Your task to perform on an android device: Open sound settings Image 0: 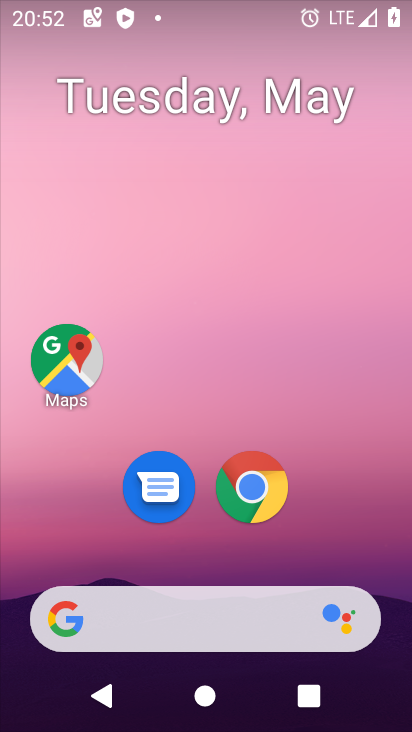
Step 0: drag from (309, 515) to (214, 6)
Your task to perform on an android device: Open sound settings Image 1: 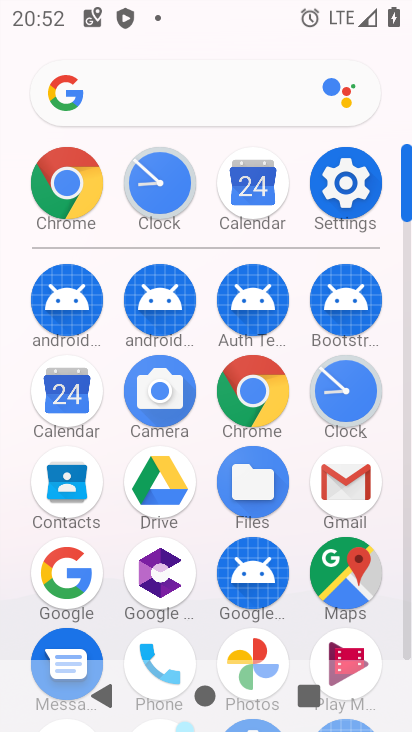
Step 1: click (344, 181)
Your task to perform on an android device: Open sound settings Image 2: 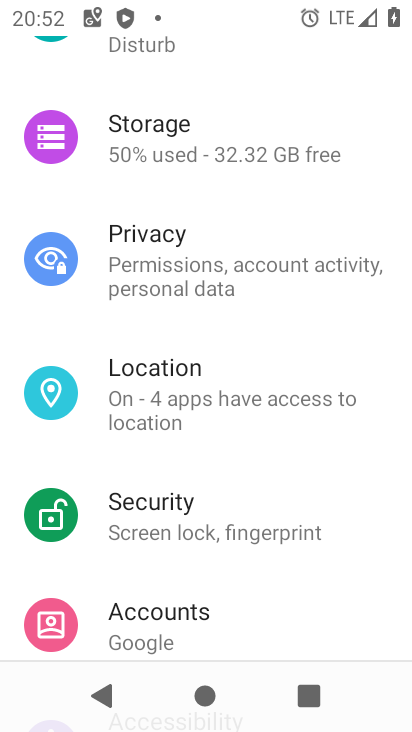
Step 2: drag from (249, 561) to (215, 288)
Your task to perform on an android device: Open sound settings Image 3: 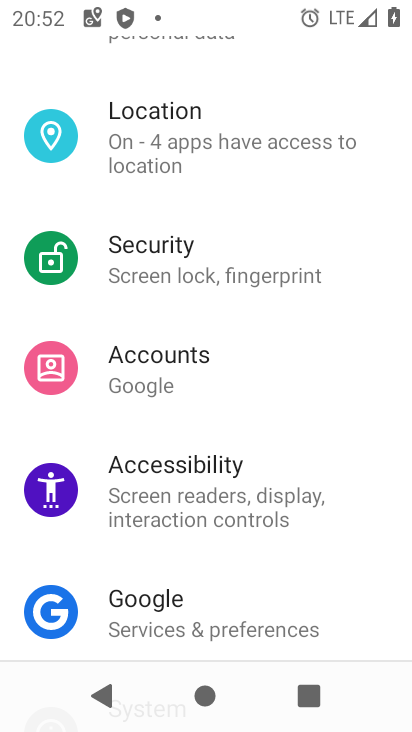
Step 3: drag from (232, 562) to (154, 209)
Your task to perform on an android device: Open sound settings Image 4: 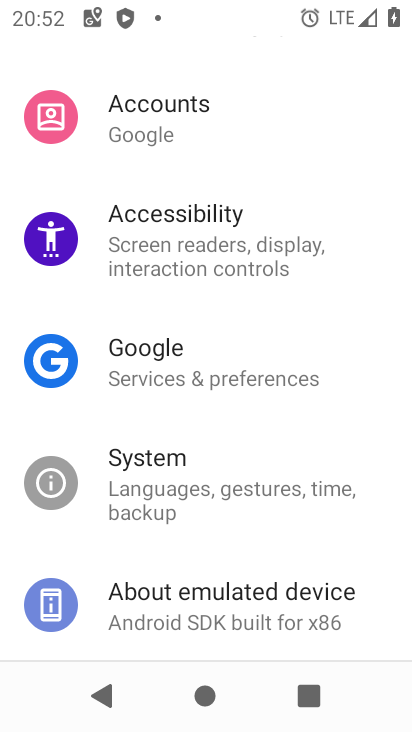
Step 4: drag from (245, 131) to (372, 654)
Your task to perform on an android device: Open sound settings Image 5: 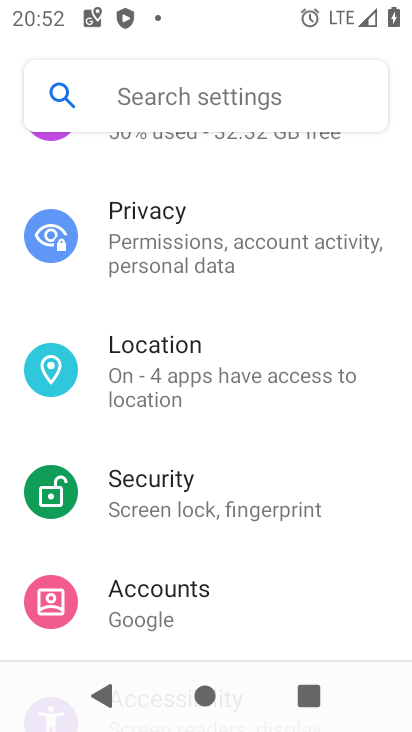
Step 5: drag from (244, 208) to (272, 722)
Your task to perform on an android device: Open sound settings Image 6: 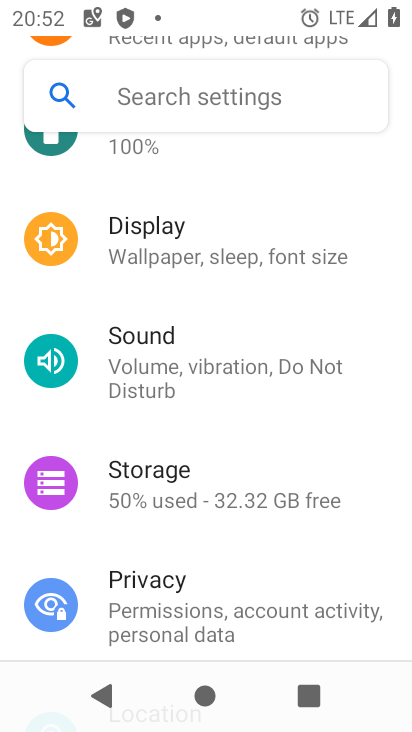
Step 6: click (146, 345)
Your task to perform on an android device: Open sound settings Image 7: 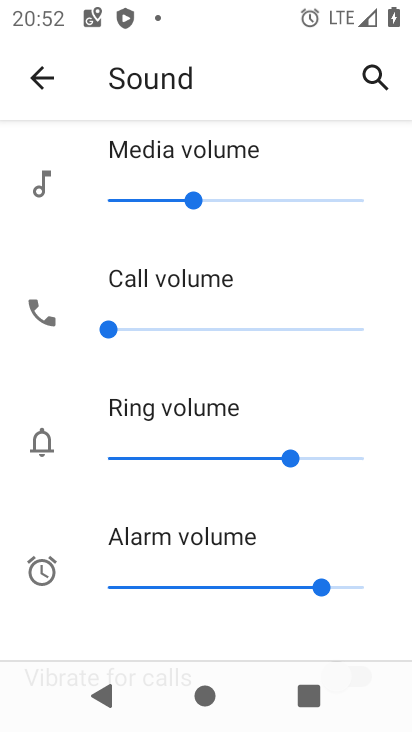
Step 7: task complete